Your task to perform on an android device: Clear all items from cart on costco. Image 0: 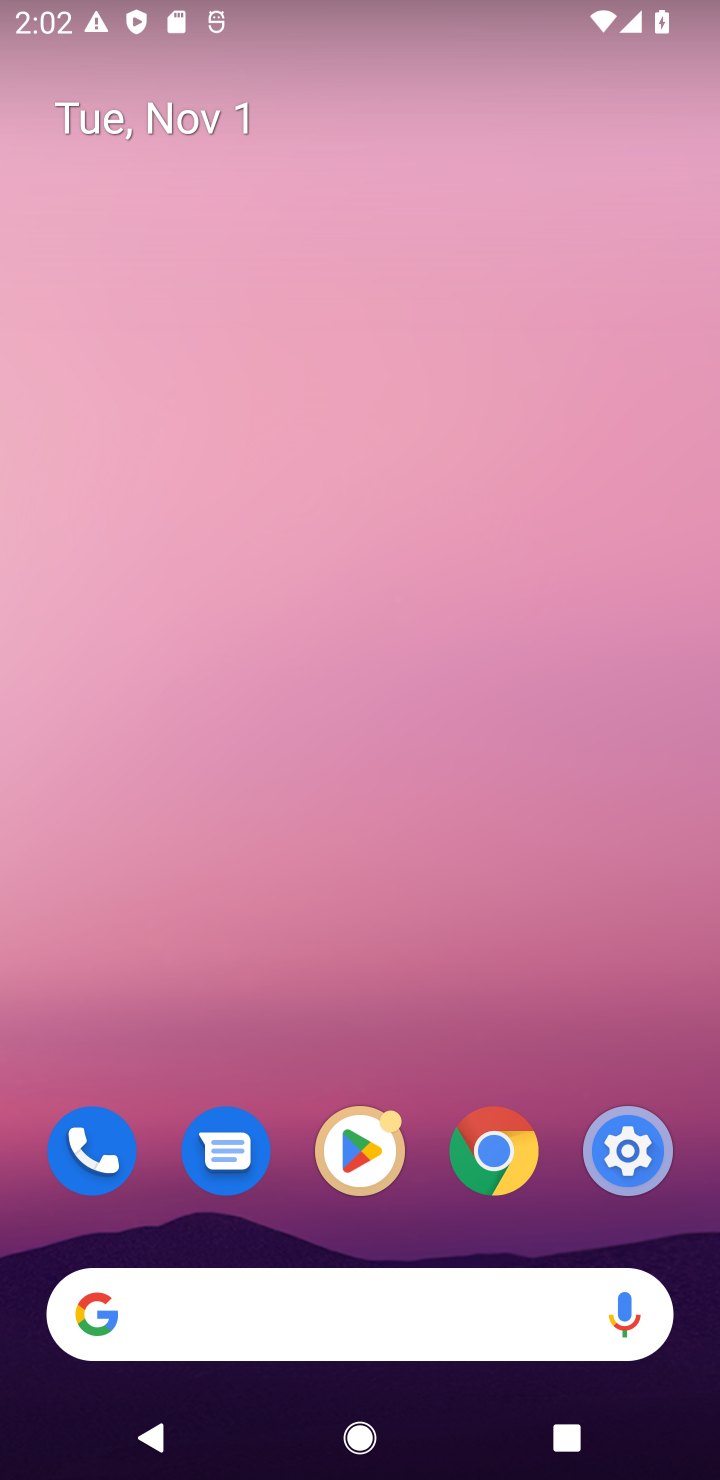
Step 0: drag from (67, 1370) to (251, 182)
Your task to perform on an android device: Clear all items from cart on costco. Image 1: 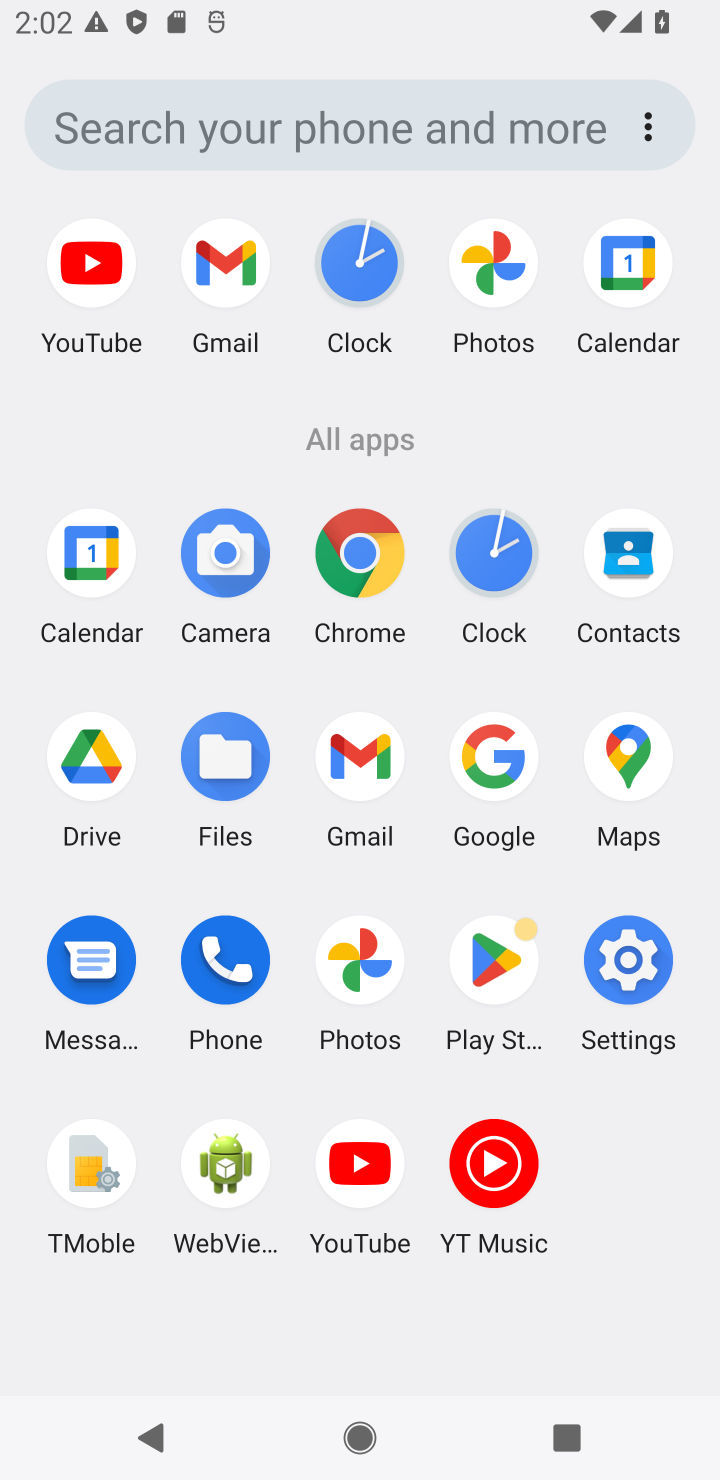
Step 1: click (361, 586)
Your task to perform on an android device: Clear all items from cart on costco. Image 2: 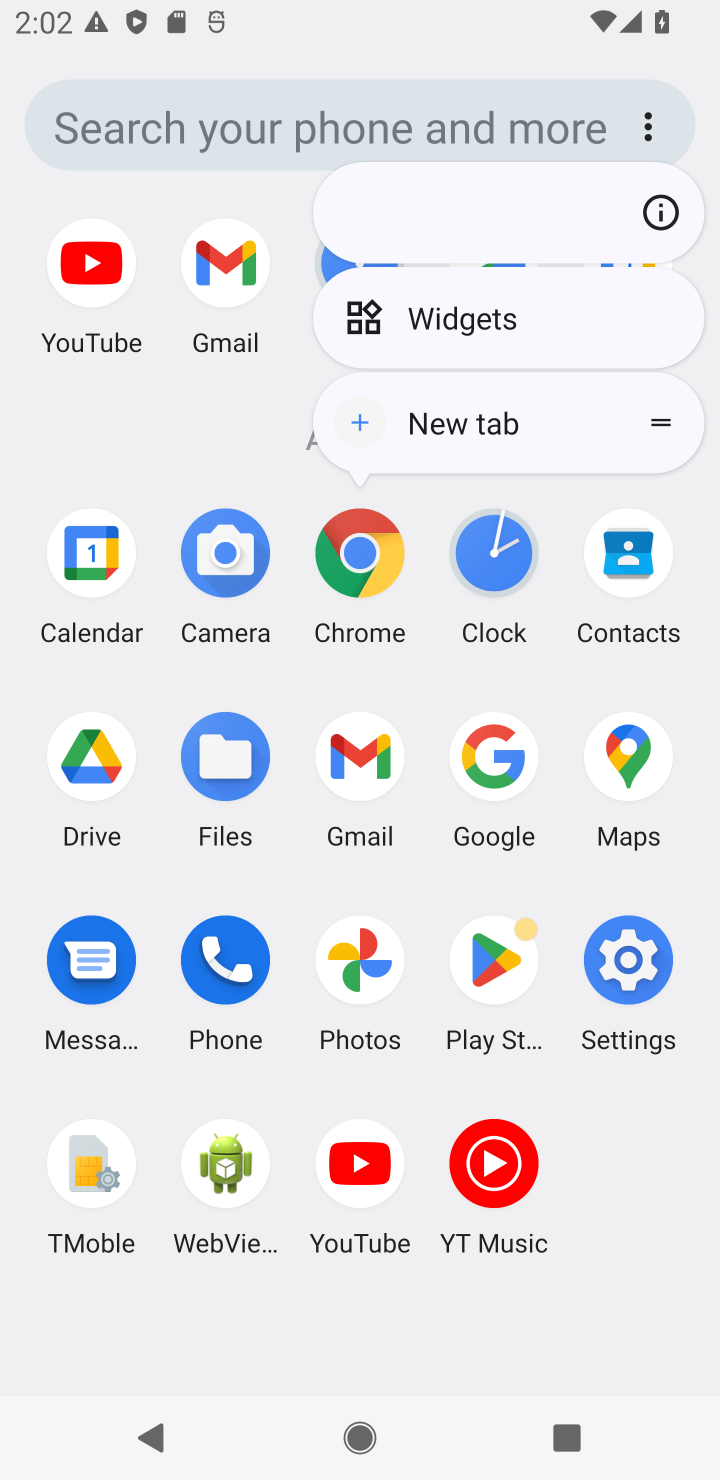
Step 2: click (361, 538)
Your task to perform on an android device: Clear all items from cart on costco. Image 3: 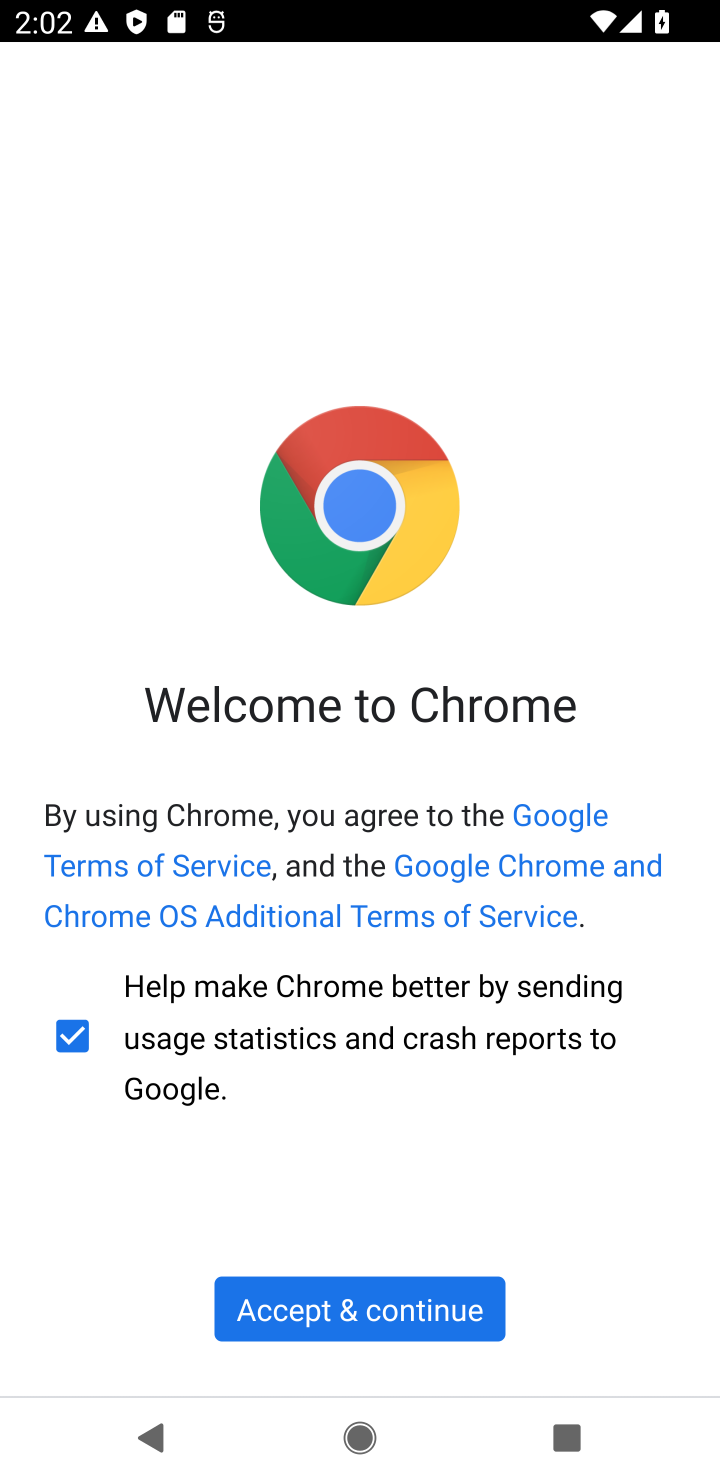
Step 3: click (341, 1320)
Your task to perform on an android device: Clear all items from cart on costco. Image 4: 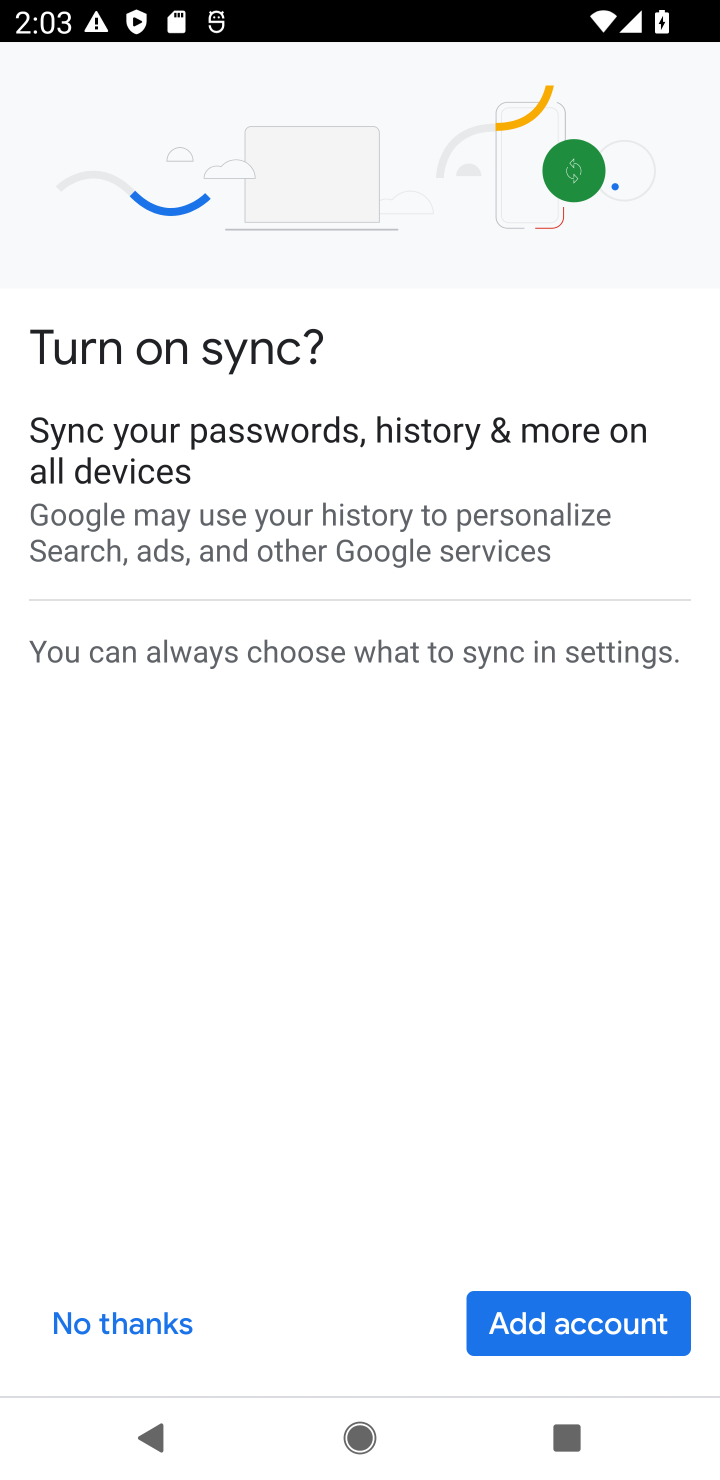
Step 4: click (115, 1312)
Your task to perform on an android device: Clear all items from cart on costco. Image 5: 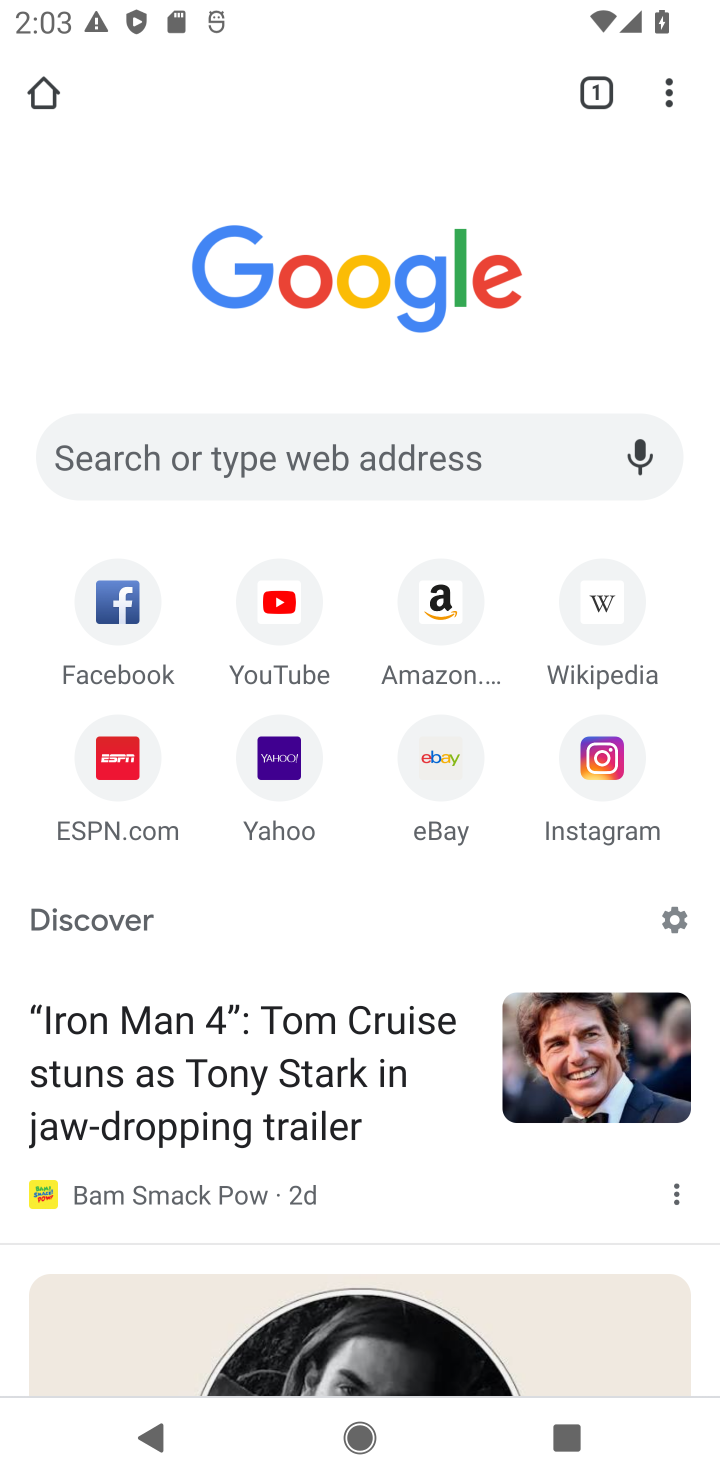
Step 5: click (188, 471)
Your task to perform on an android device: Clear all items from cart on costco. Image 6: 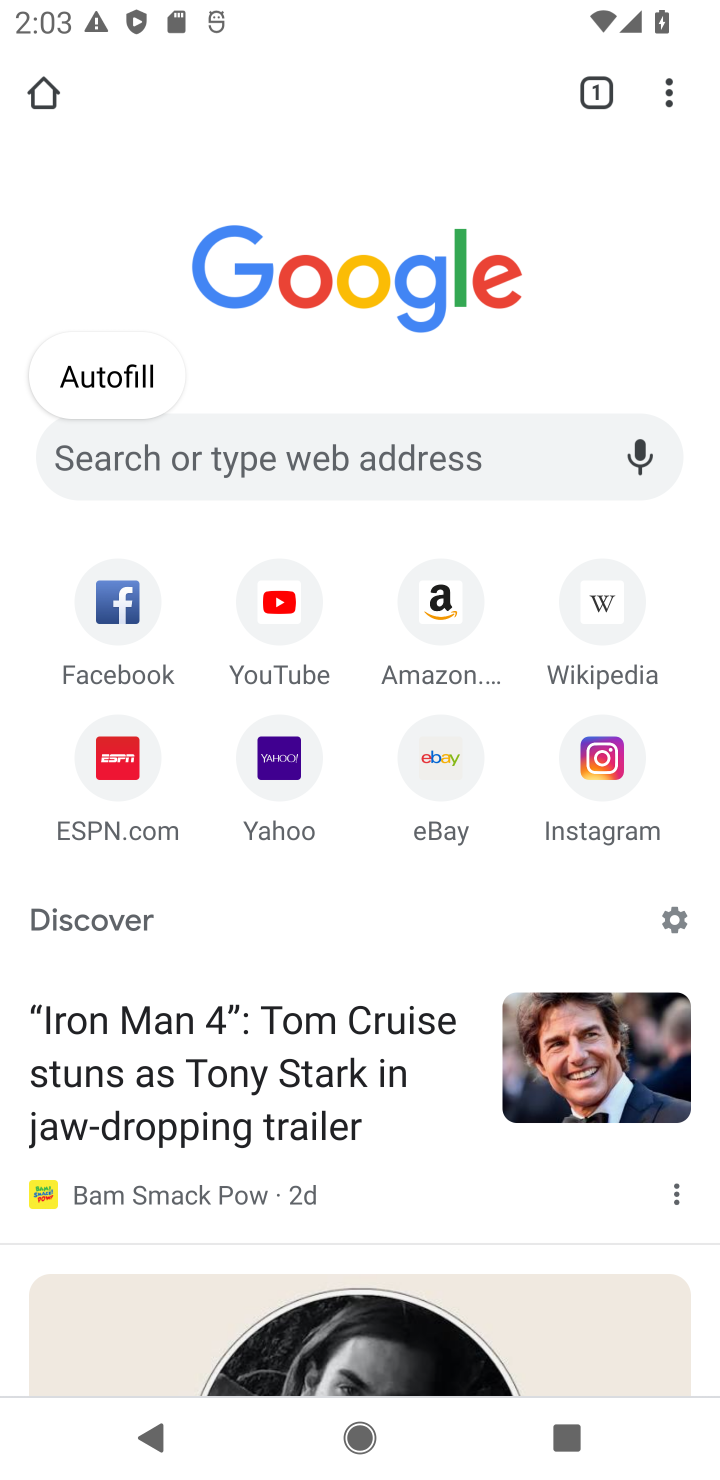
Step 6: click (204, 449)
Your task to perform on an android device: Clear all items from cart on costco. Image 7: 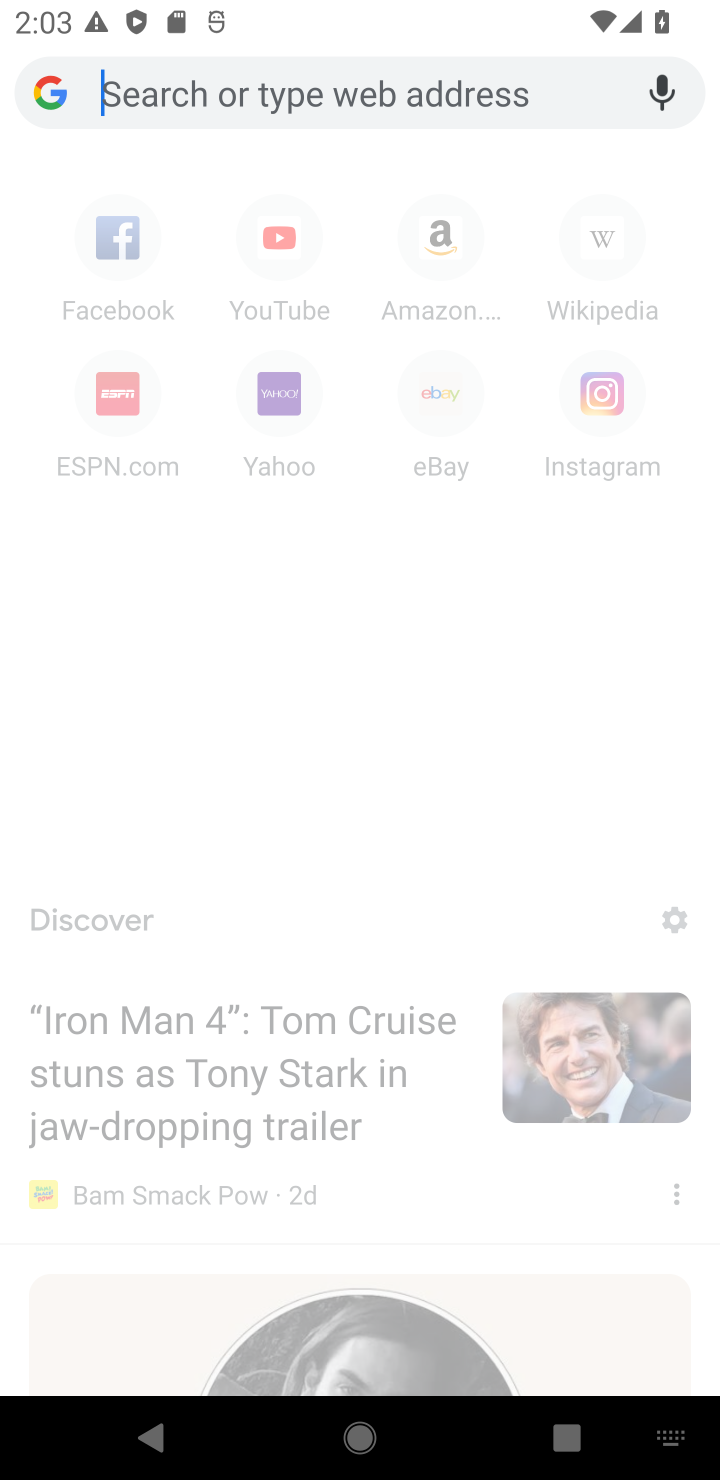
Step 7: type "costco."
Your task to perform on an android device: Clear all items from cart on costco. Image 8: 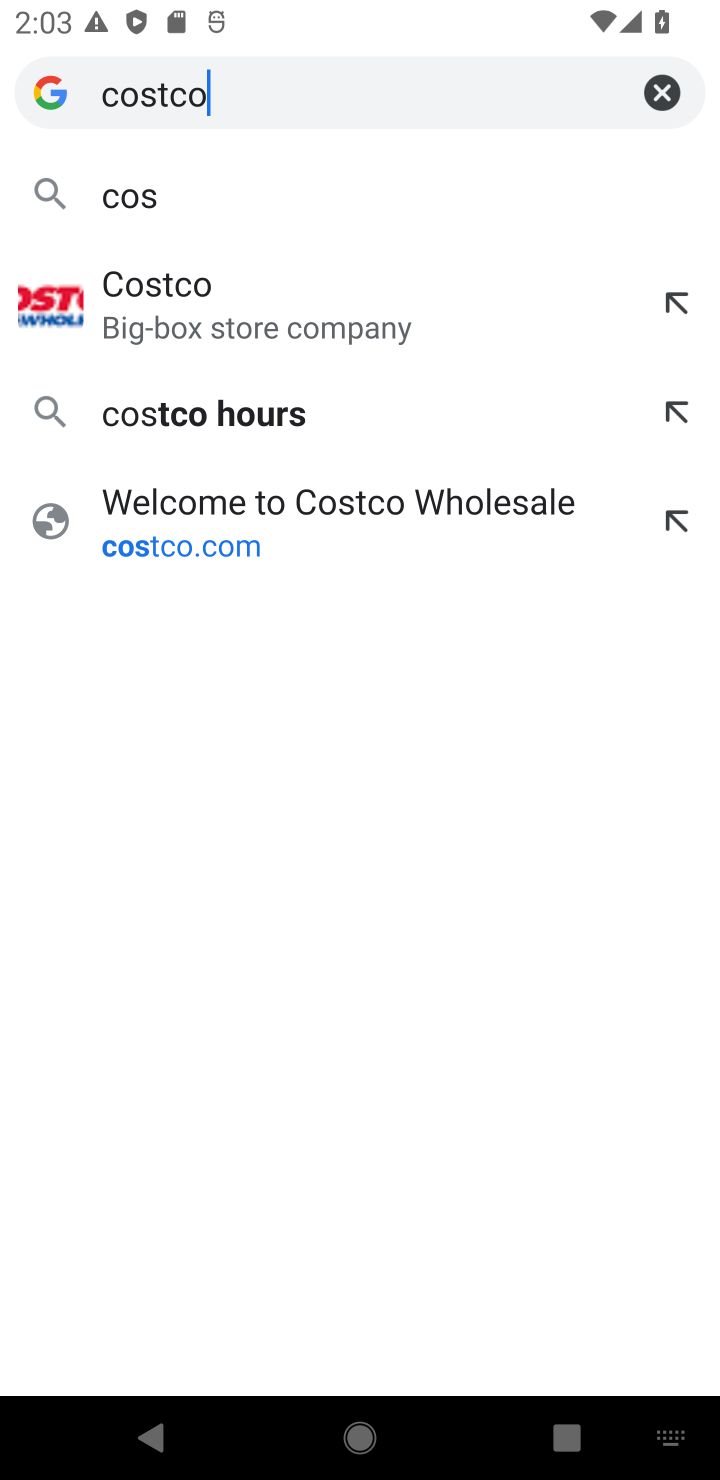
Step 8: press enter
Your task to perform on an android device: Clear all items from cart on costco. Image 9: 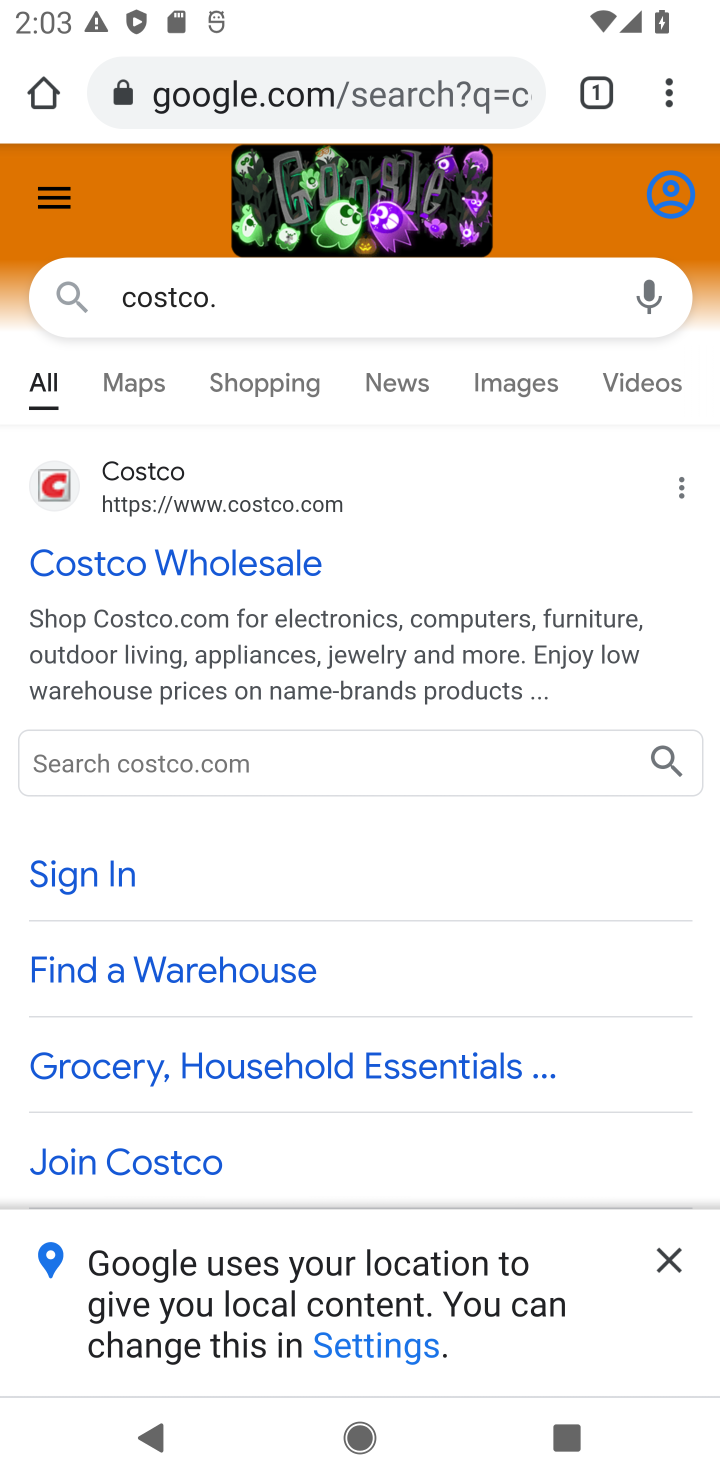
Step 9: click (71, 556)
Your task to perform on an android device: Clear all items from cart on costco. Image 10: 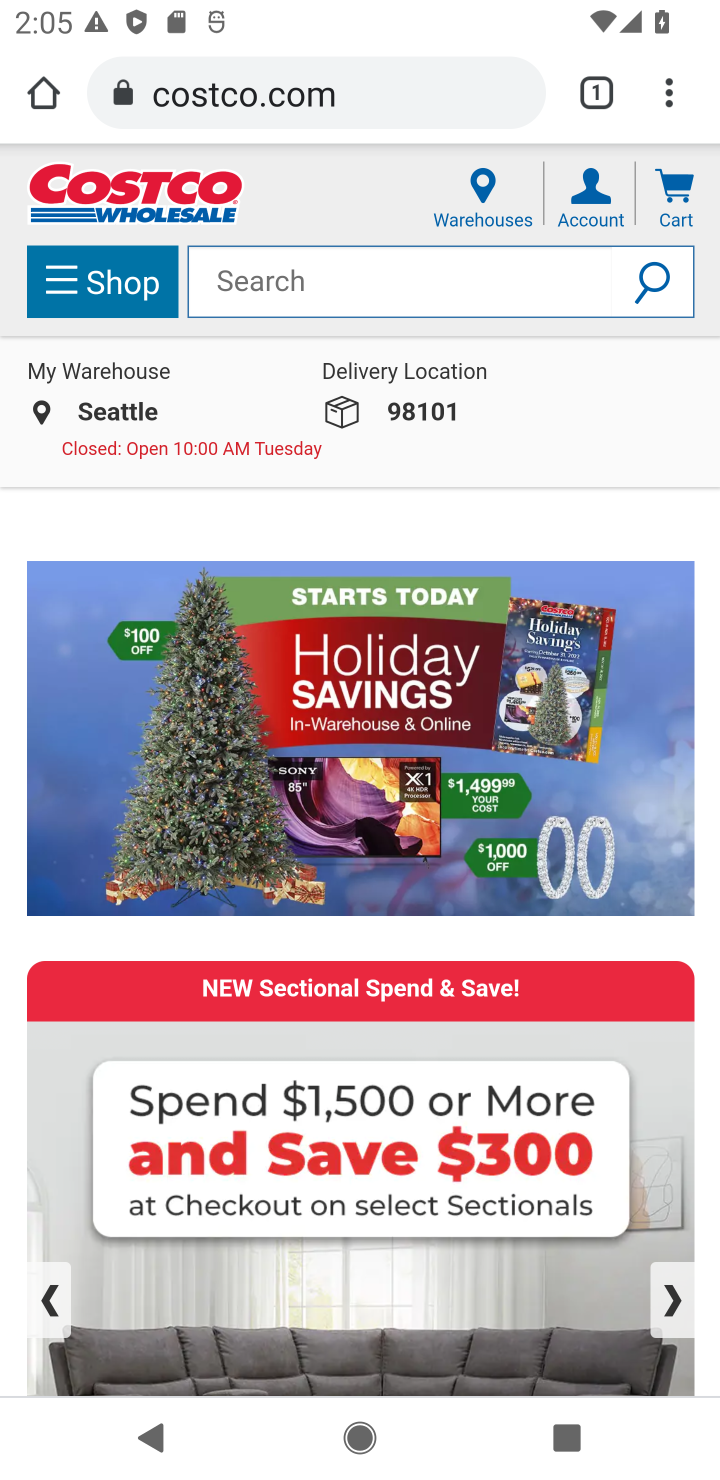
Step 10: click (679, 187)
Your task to perform on an android device: Clear all items from cart on costco. Image 11: 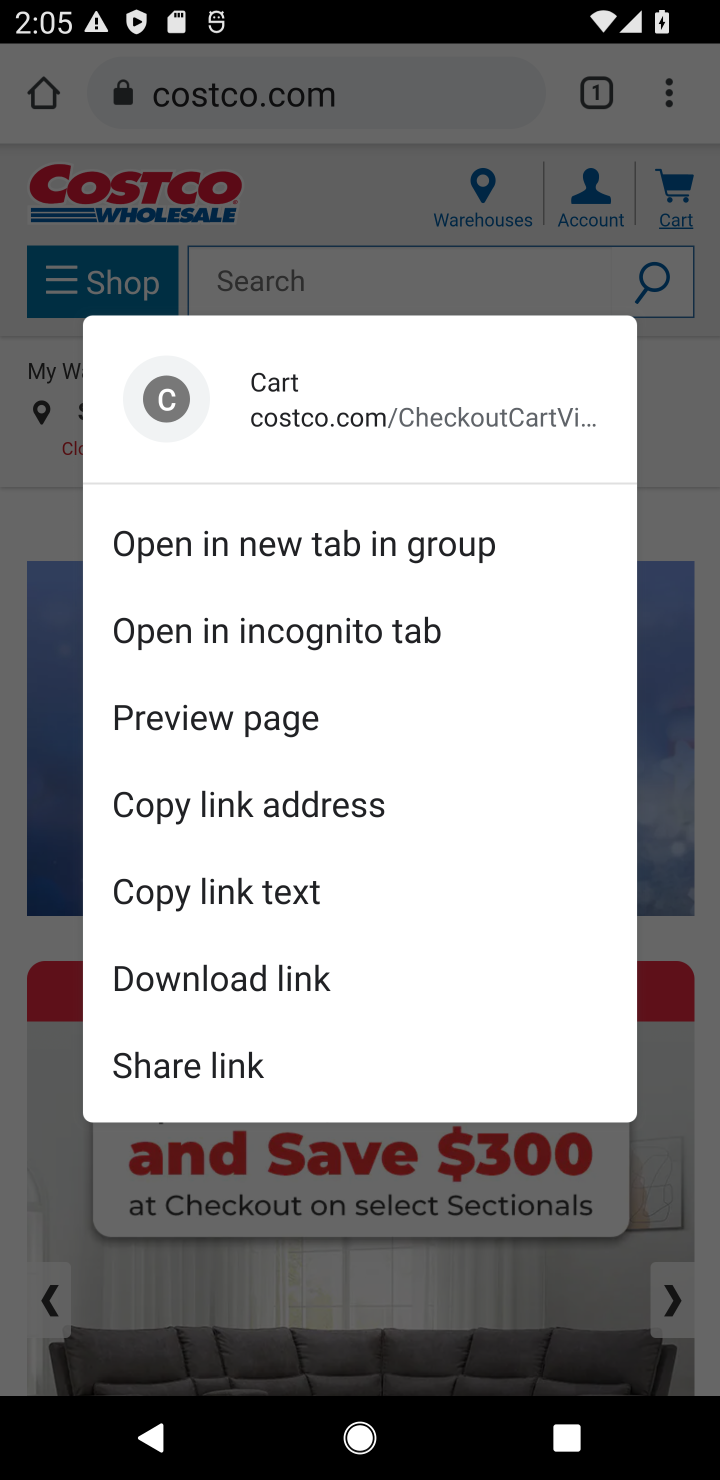
Step 11: task complete